Your task to perform on an android device: open app "Mercado Libre" (install if not already installed) Image 0: 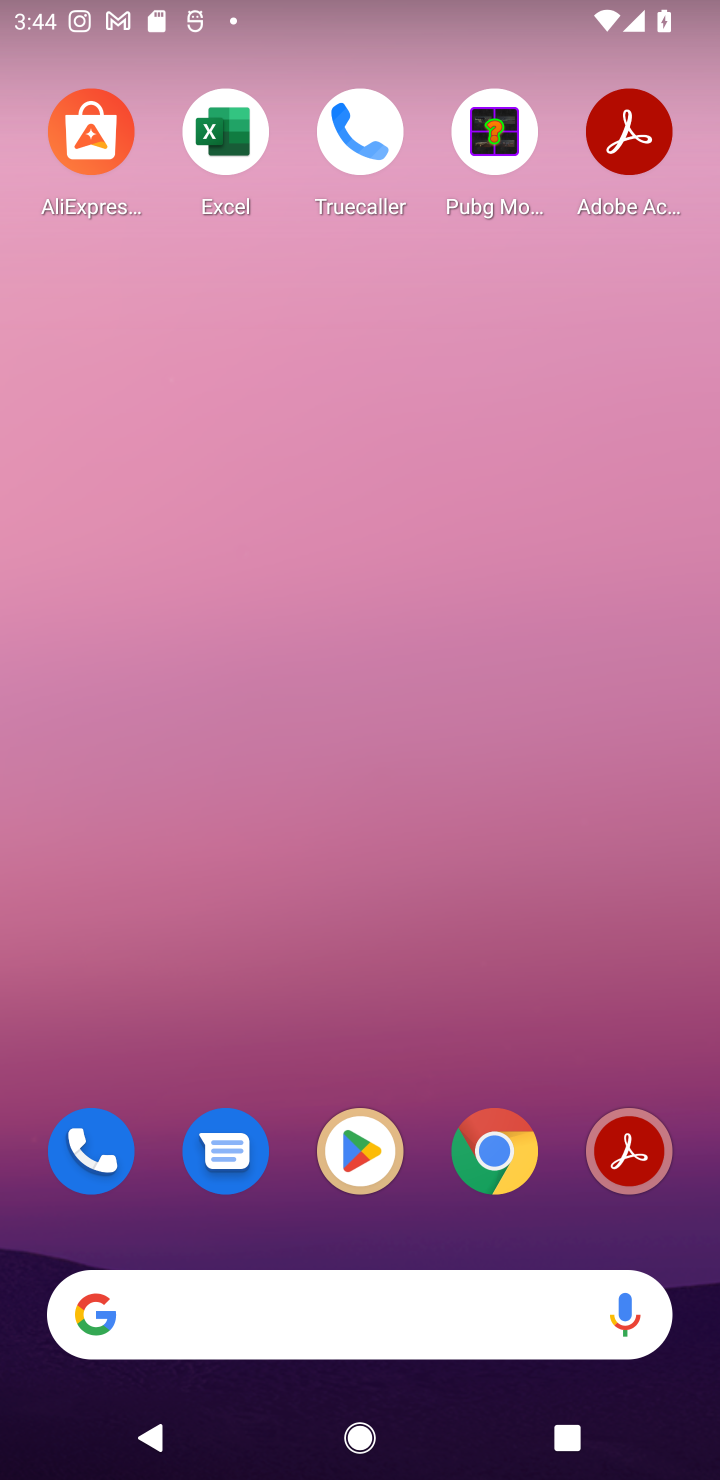
Step 0: press home button
Your task to perform on an android device: open app "Mercado Libre" (install if not already installed) Image 1: 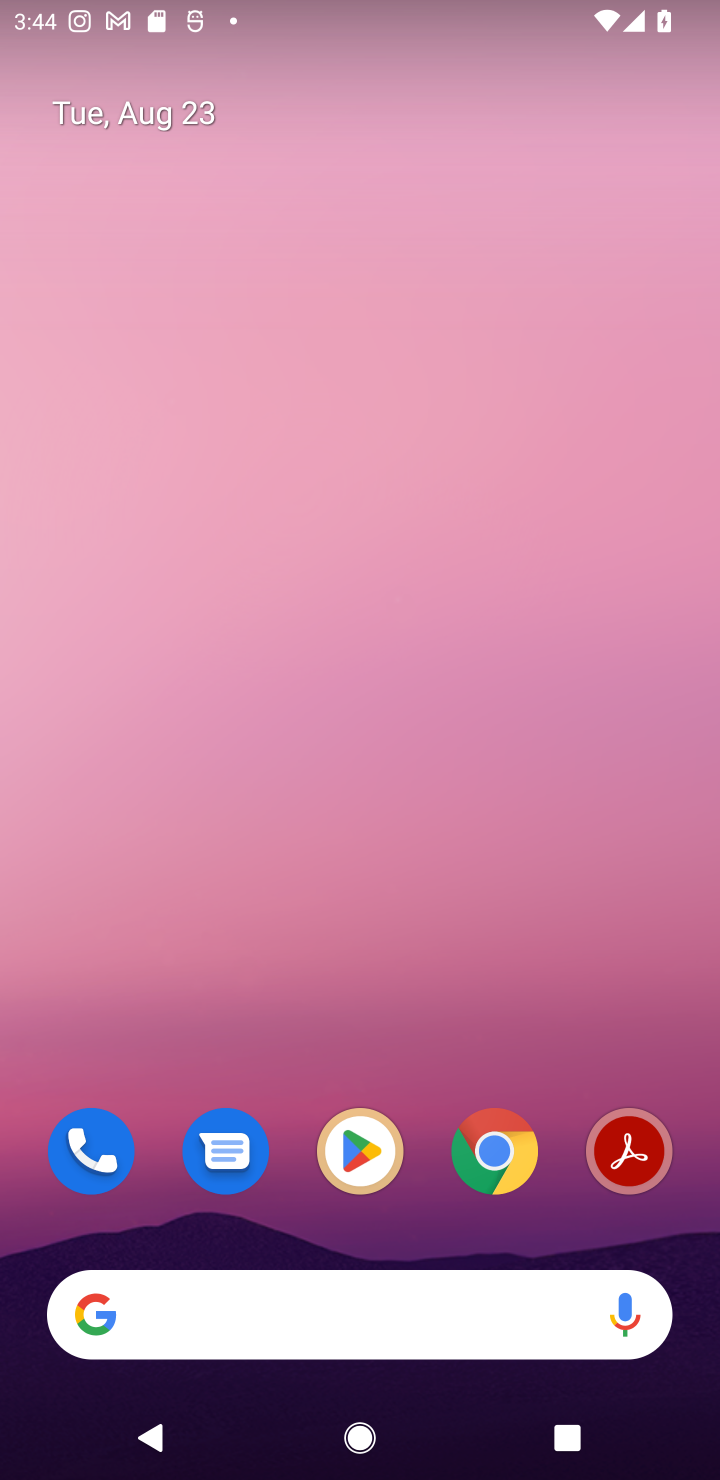
Step 1: click (359, 1151)
Your task to perform on an android device: open app "Mercado Libre" (install if not already installed) Image 2: 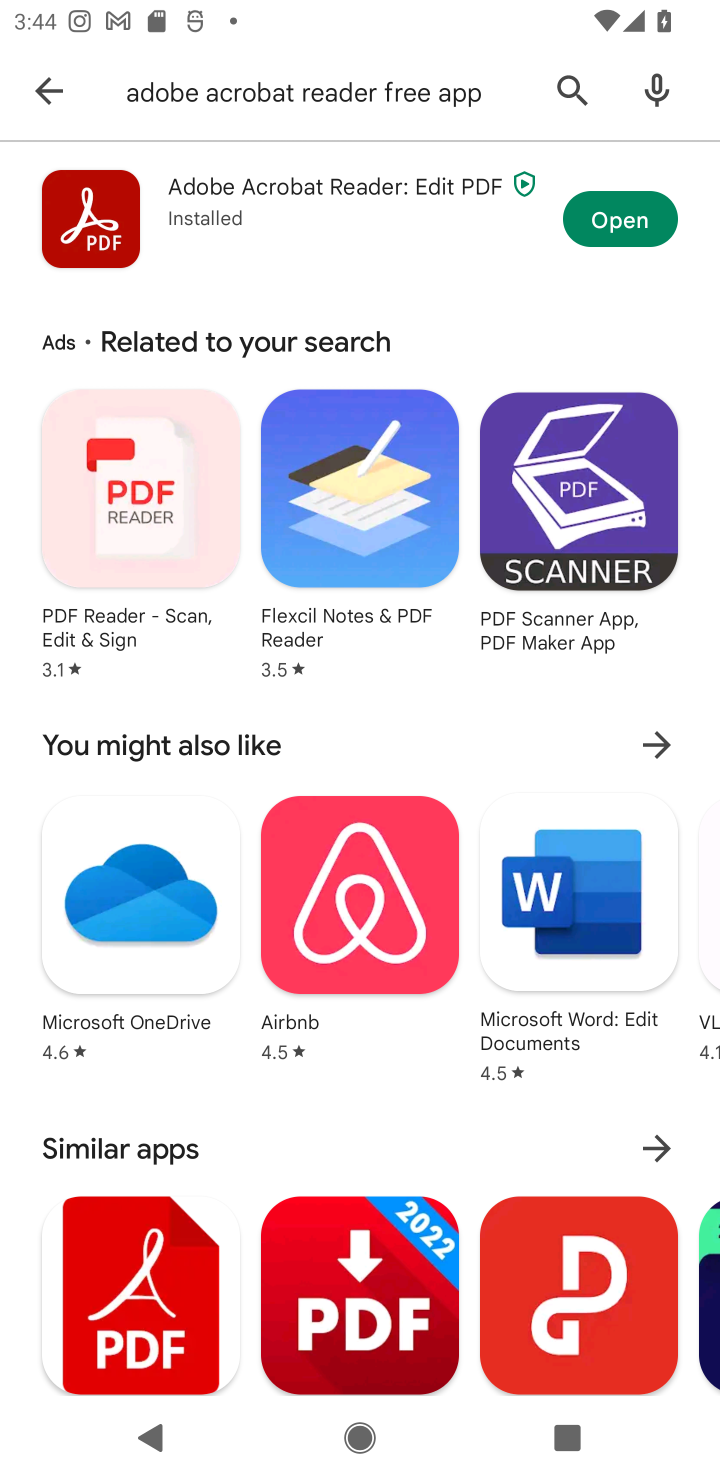
Step 2: click (559, 78)
Your task to perform on an android device: open app "Mercado Libre" (install if not already installed) Image 3: 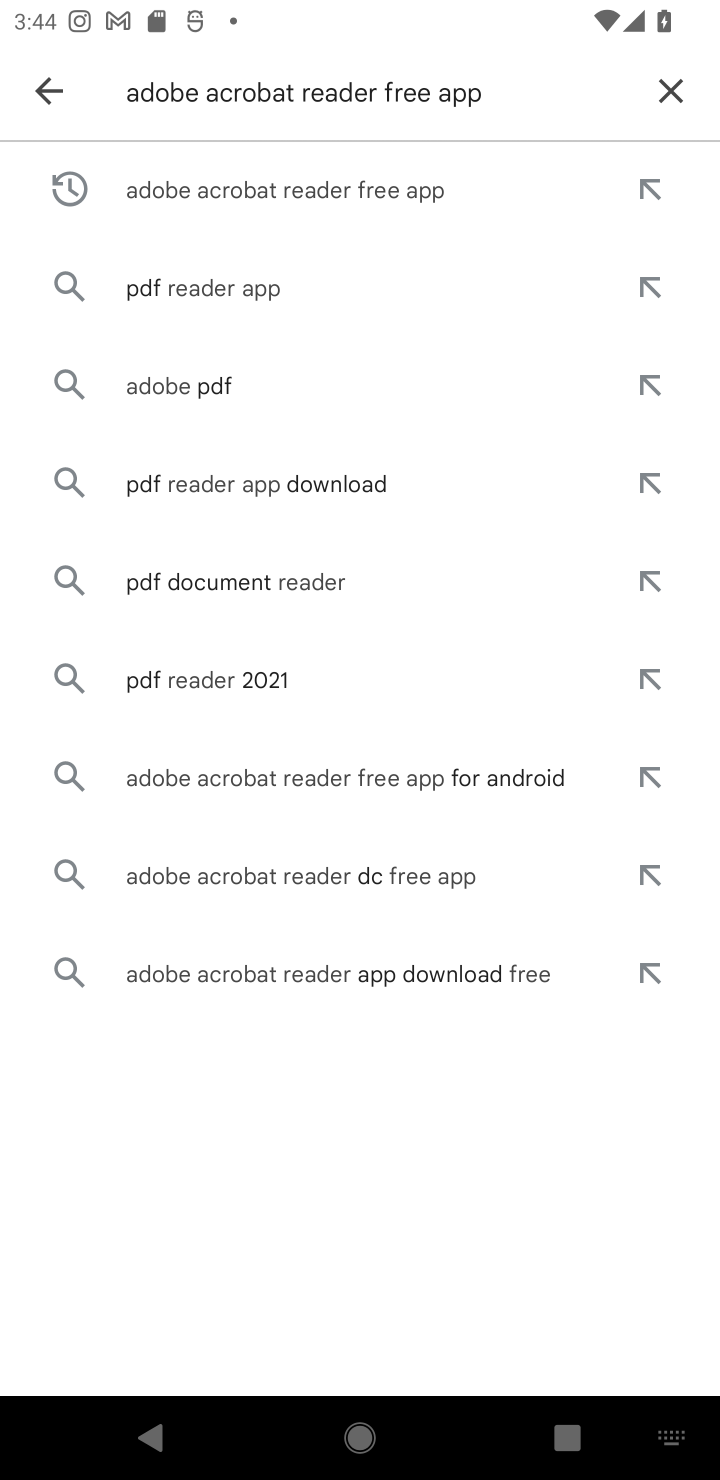
Step 3: click (681, 83)
Your task to perform on an android device: open app "Mercado Libre" (install if not already installed) Image 4: 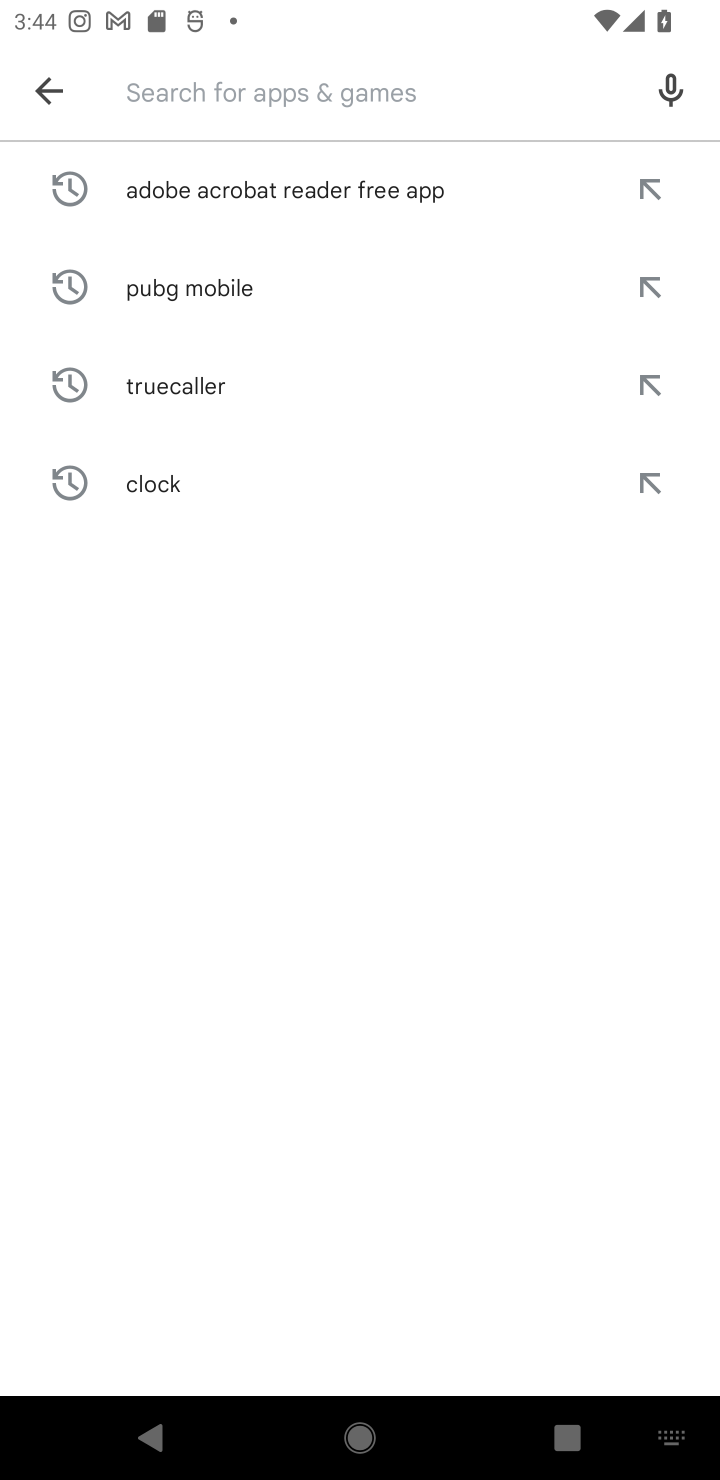
Step 4: type "Mercado Libre"
Your task to perform on an android device: open app "Mercado Libre" (install if not already installed) Image 5: 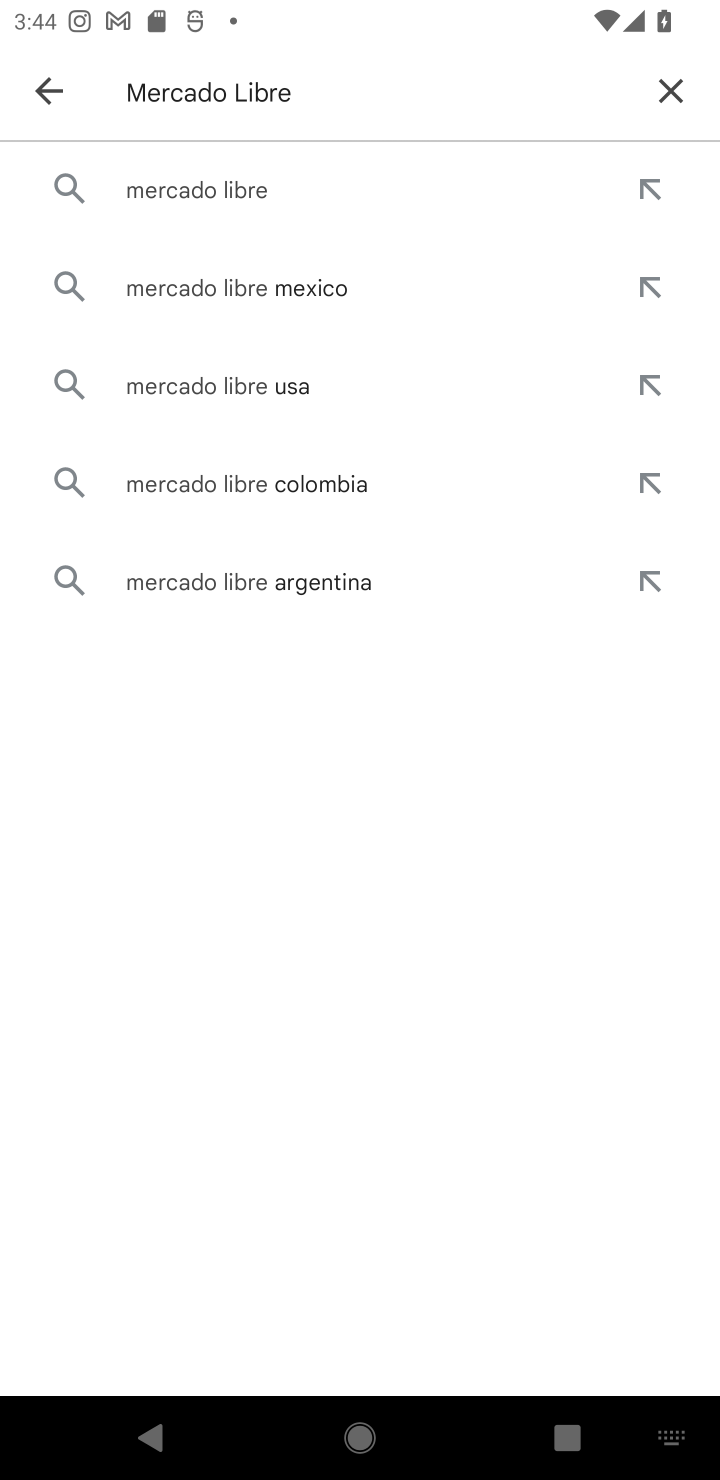
Step 5: click (211, 190)
Your task to perform on an android device: open app "Mercado Libre" (install if not already installed) Image 6: 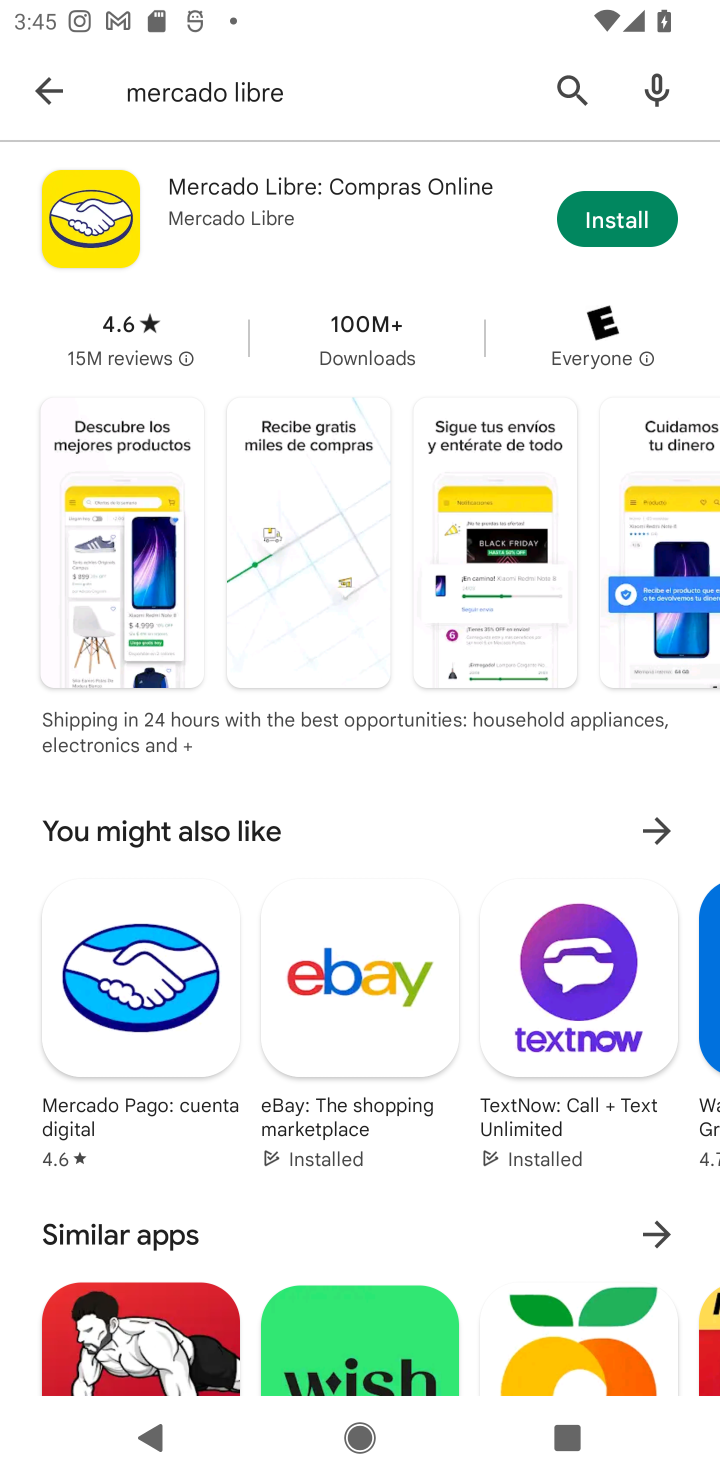
Step 6: click (635, 234)
Your task to perform on an android device: open app "Mercado Libre" (install if not already installed) Image 7: 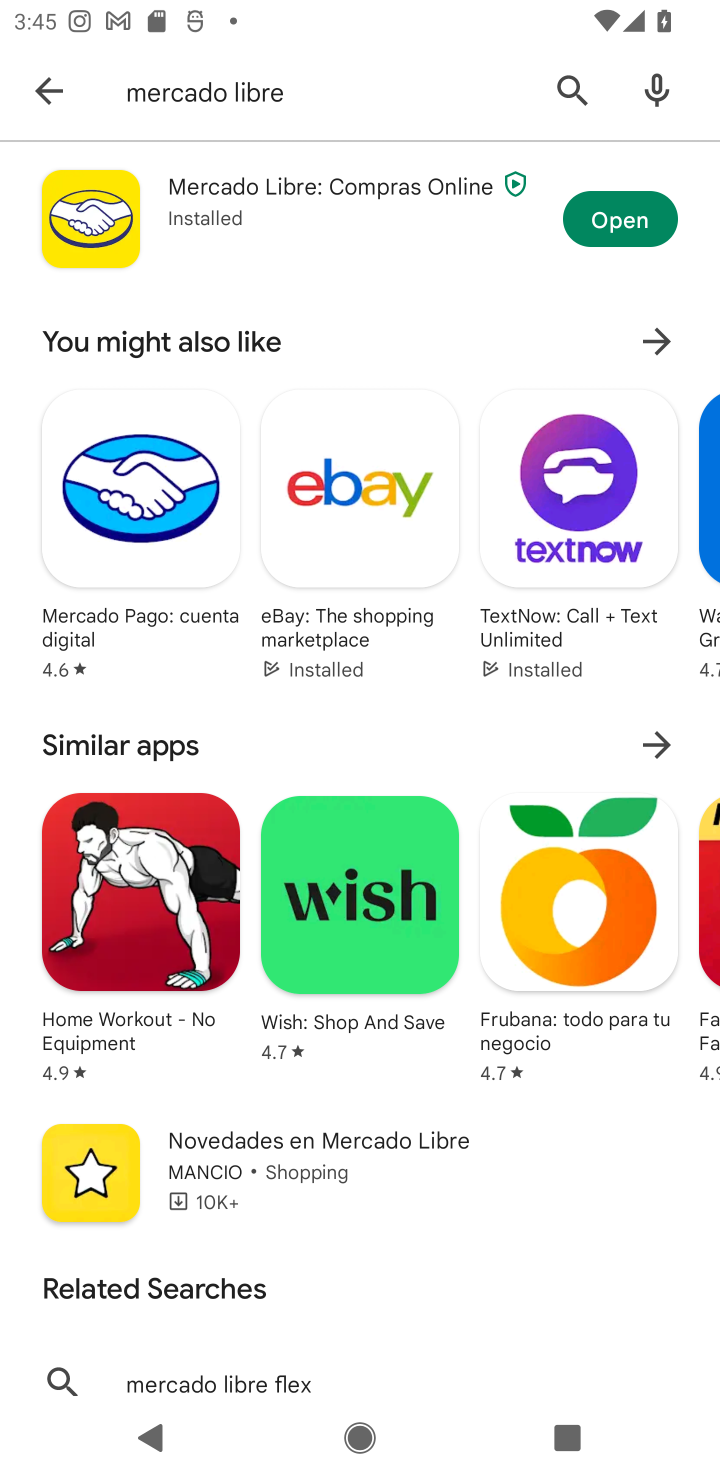
Step 7: click (613, 223)
Your task to perform on an android device: open app "Mercado Libre" (install if not already installed) Image 8: 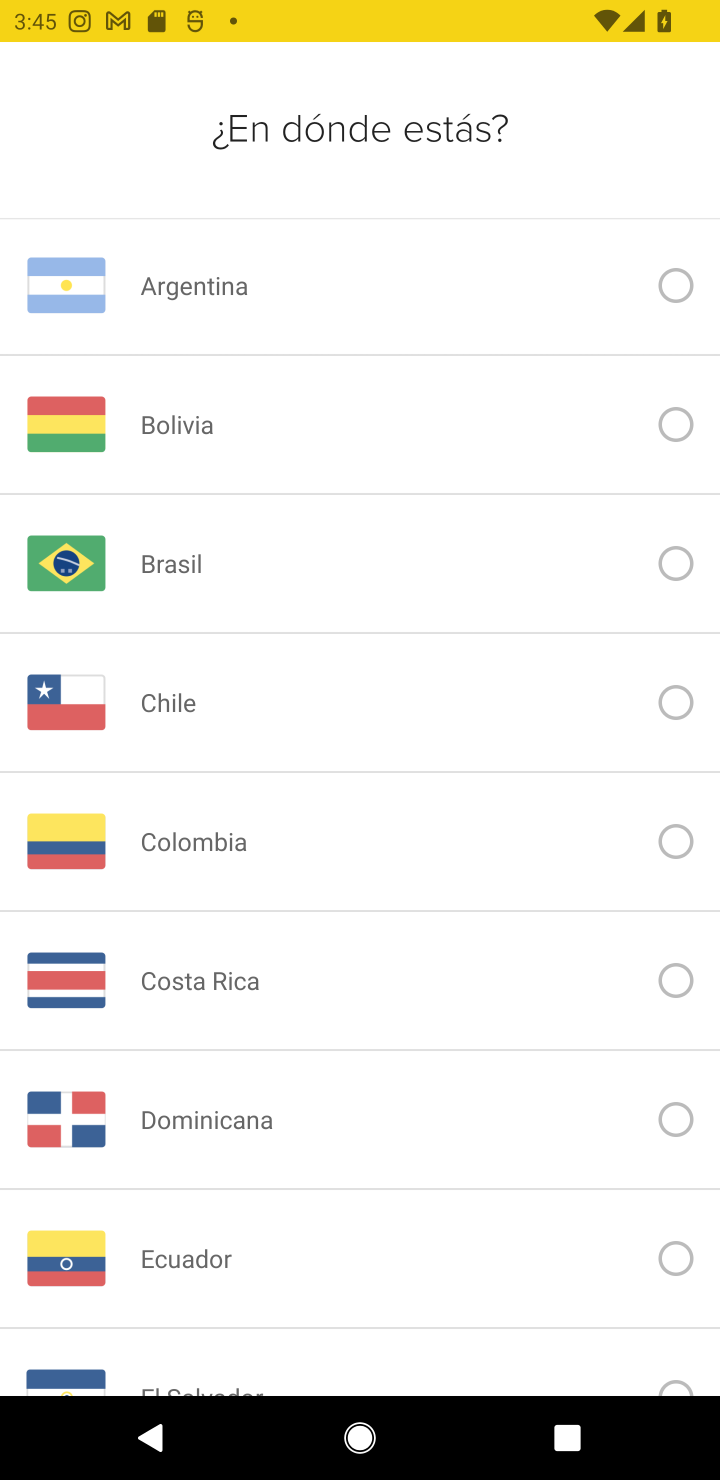
Step 8: task complete